Your task to perform on an android device: Go to location settings Image 0: 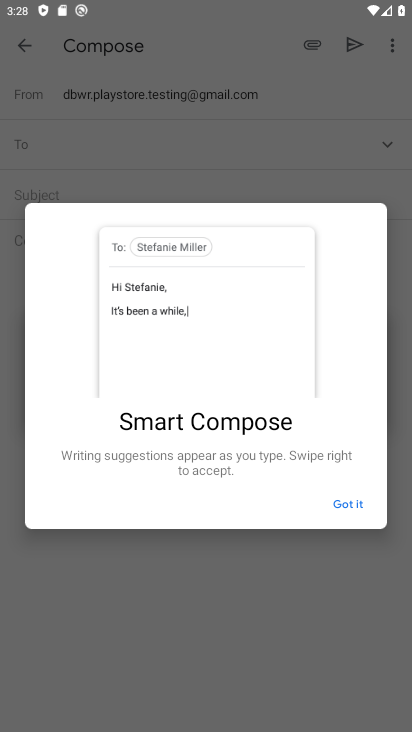
Step 0: drag from (276, 628) to (233, 225)
Your task to perform on an android device: Go to location settings Image 1: 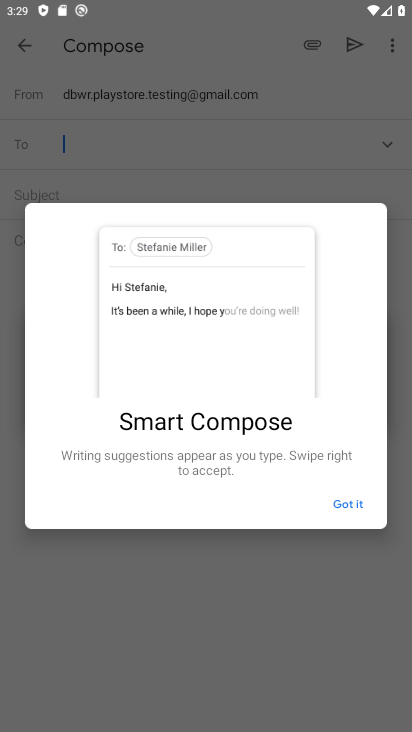
Step 1: press home button
Your task to perform on an android device: Go to location settings Image 2: 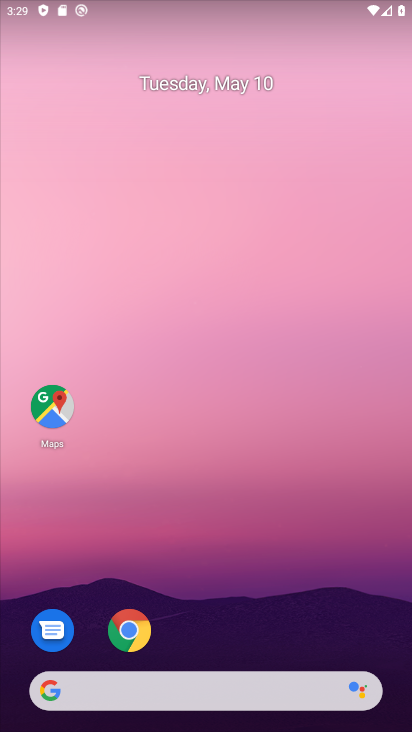
Step 2: drag from (193, 608) to (313, 9)
Your task to perform on an android device: Go to location settings Image 3: 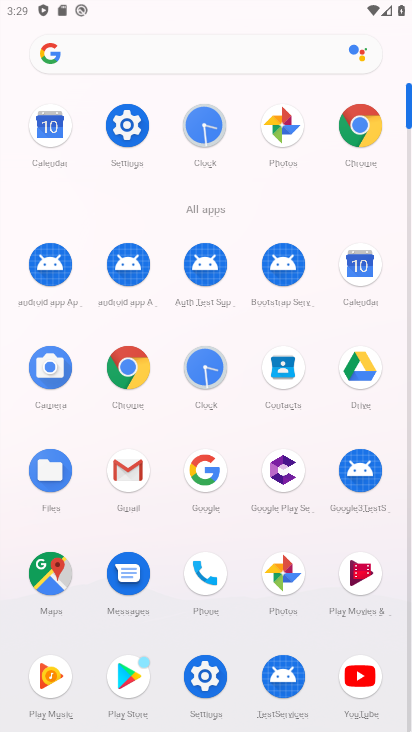
Step 3: click (139, 143)
Your task to perform on an android device: Go to location settings Image 4: 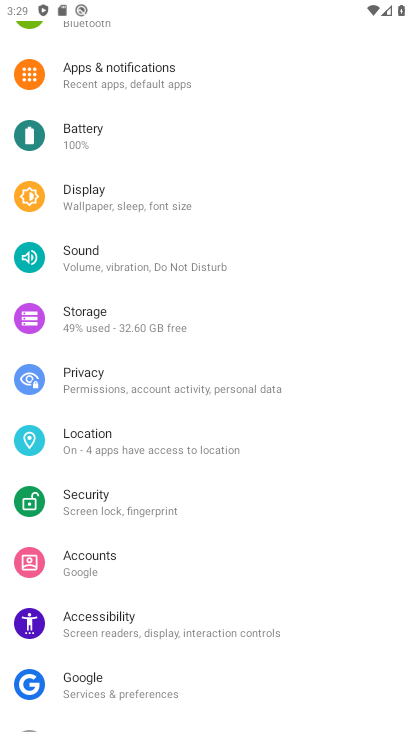
Step 4: click (177, 432)
Your task to perform on an android device: Go to location settings Image 5: 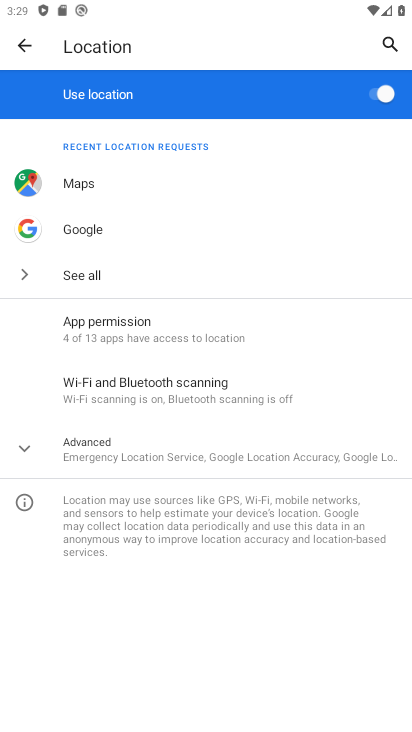
Step 5: task complete